Your task to perform on an android device: Open Google Image 0: 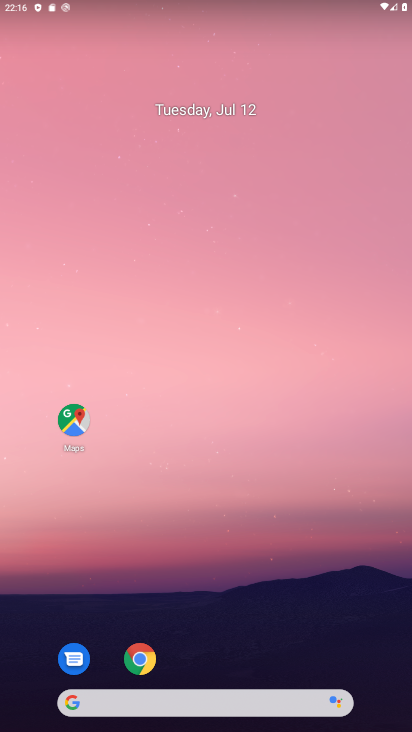
Step 0: drag from (252, 651) to (259, 216)
Your task to perform on an android device: Open Google Image 1: 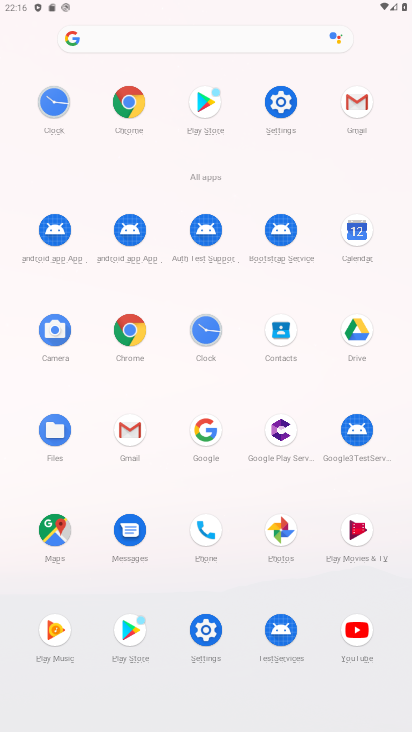
Step 1: click (197, 425)
Your task to perform on an android device: Open Google Image 2: 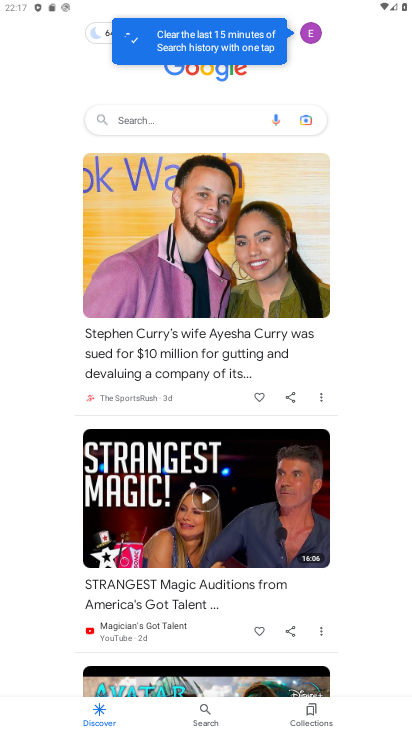
Step 2: task complete